Your task to perform on an android device: Open the map Image 0: 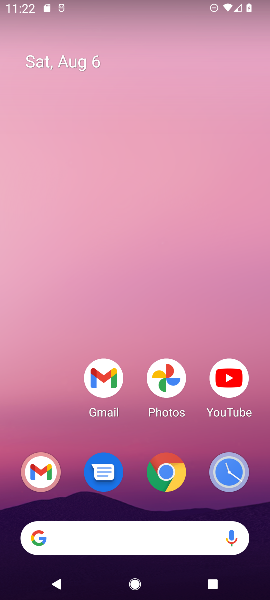
Step 0: drag from (178, 574) to (68, 149)
Your task to perform on an android device: Open the map Image 1: 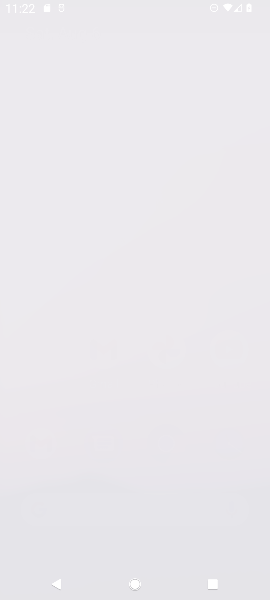
Step 1: drag from (127, 437) to (132, 144)
Your task to perform on an android device: Open the map Image 2: 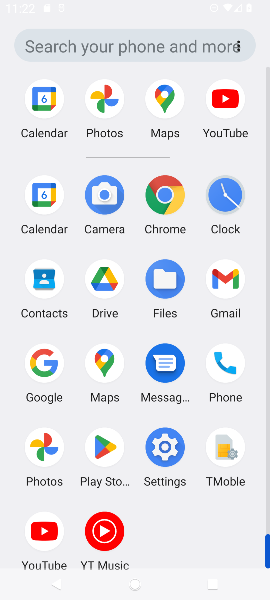
Step 2: drag from (171, 447) to (142, 156)
Your task to perform on an android device: Open the map Image 3: 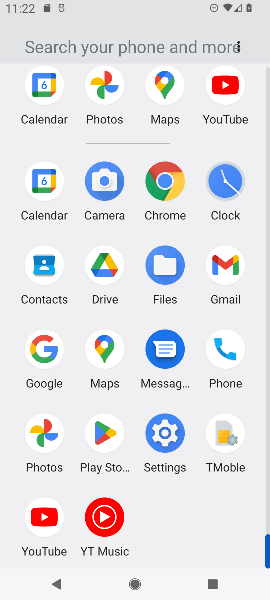
Step 3: click (110, 356)
Your task to perform on an android device: Open the map Image 4: 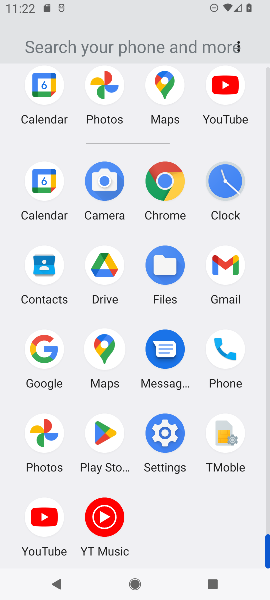
Step 4: click (110, 356)
Your task to perform on an android device: Open the map Image 5: 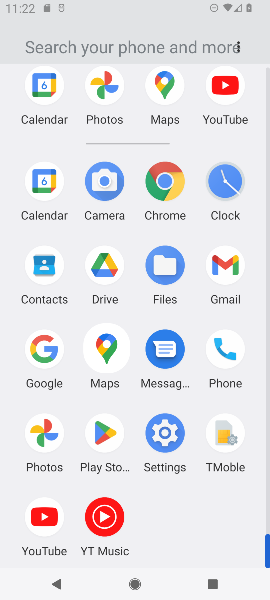
Step 5: click (110, 356)
Your task to perform on an android device: Open the map Image 6: 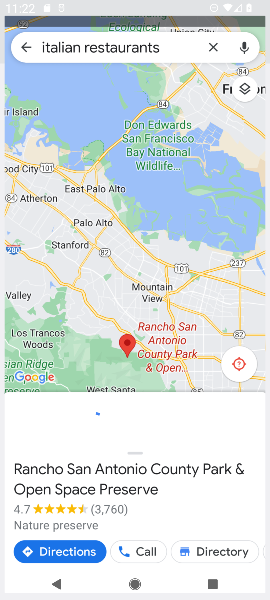
Step 6: click (107, 350)
Your task to perform on an android device: Open the map Image 7: 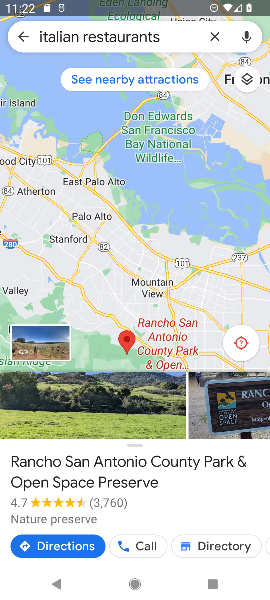
Step 7: task complete